Your task to perform on an android device: change notifications settings Image 0: 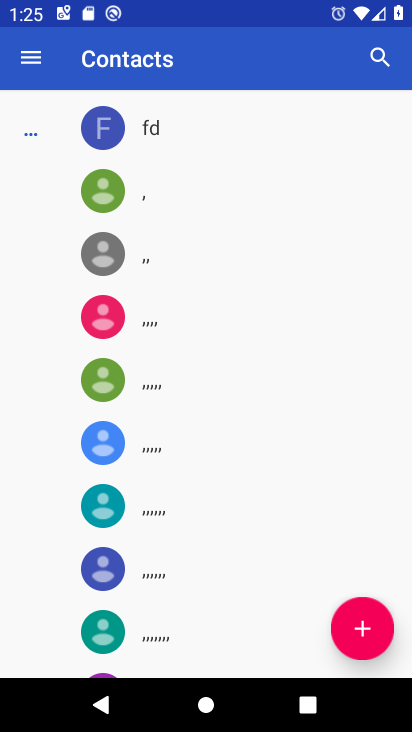
Step 0: press home button
Your task to perform on an android device: change notifications settings Image 1: 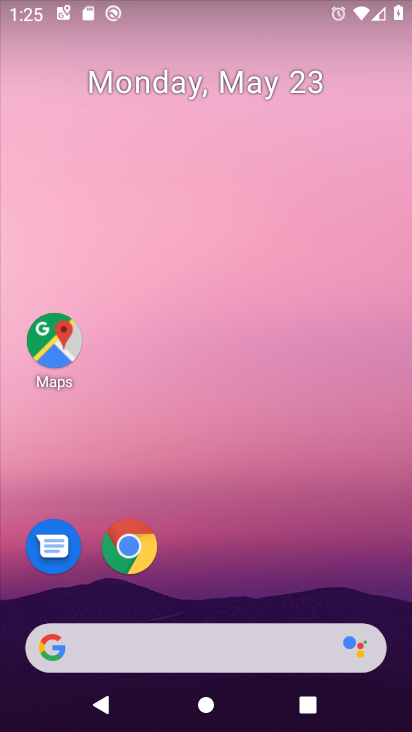
Step 1: drag from (232, 554) to (302, 122)
Your task to perform on an android device: change notifications settings Image 2: 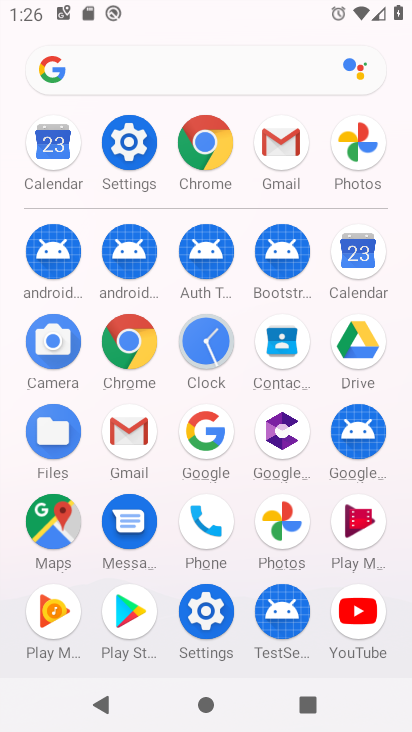
Step 2: click (127, 152)
Your task to perform on an android device: change notifications settings Image 3: 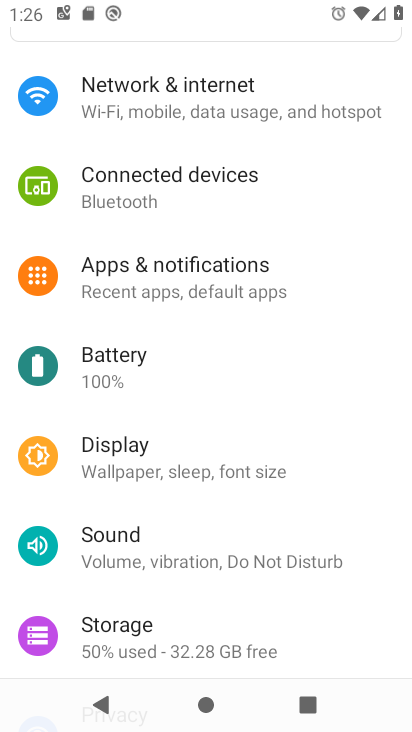
Step 3: click (283, 275)
Your task to perform on an android device: change notifications settings Image 4: 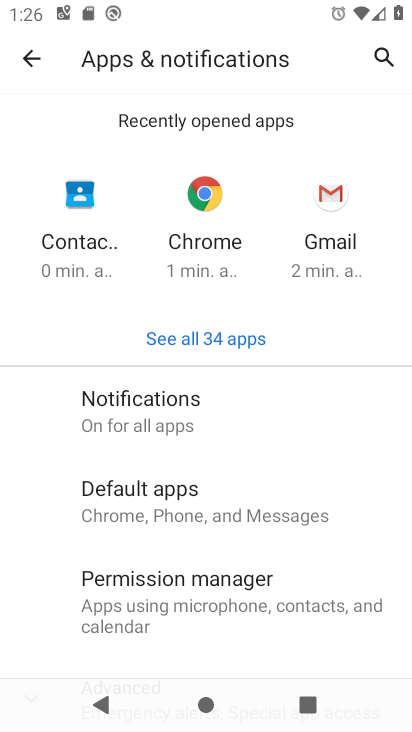
Step 4: click (244, 394)
Your task to perform on an android device: change notifications settings Image 5: 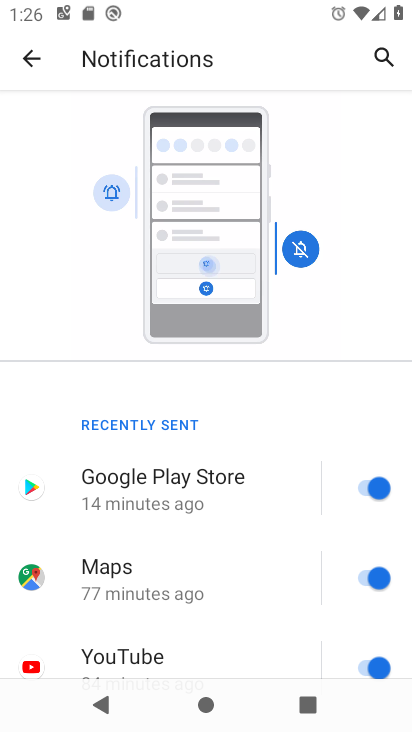
Step 5: drag from (223, 618) to (257, 149)
Your task to perform on an android device: change notifications settings Image 6: 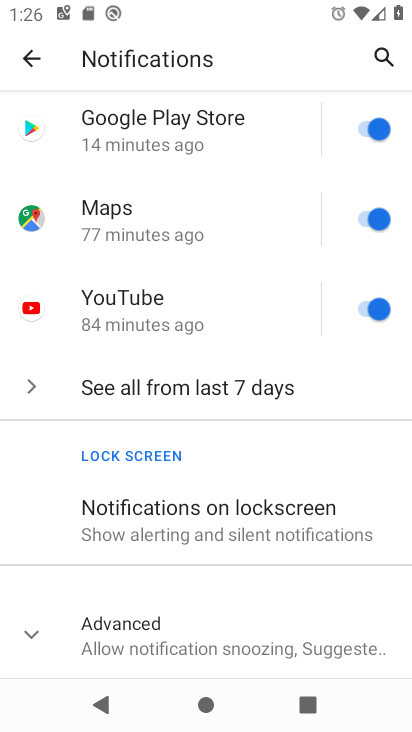
Step 6: click (366, 215)
Your task to perform on an android device: change notifications settings Image 7: 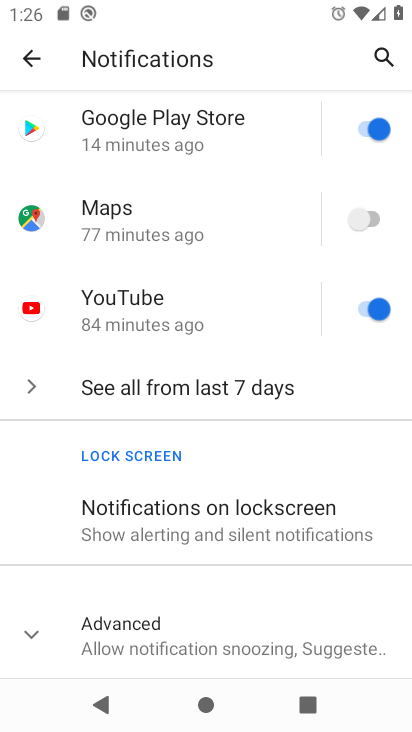
Step 7: task complete